Your task to perform on an android device: uninstall "Clock" Image 0: 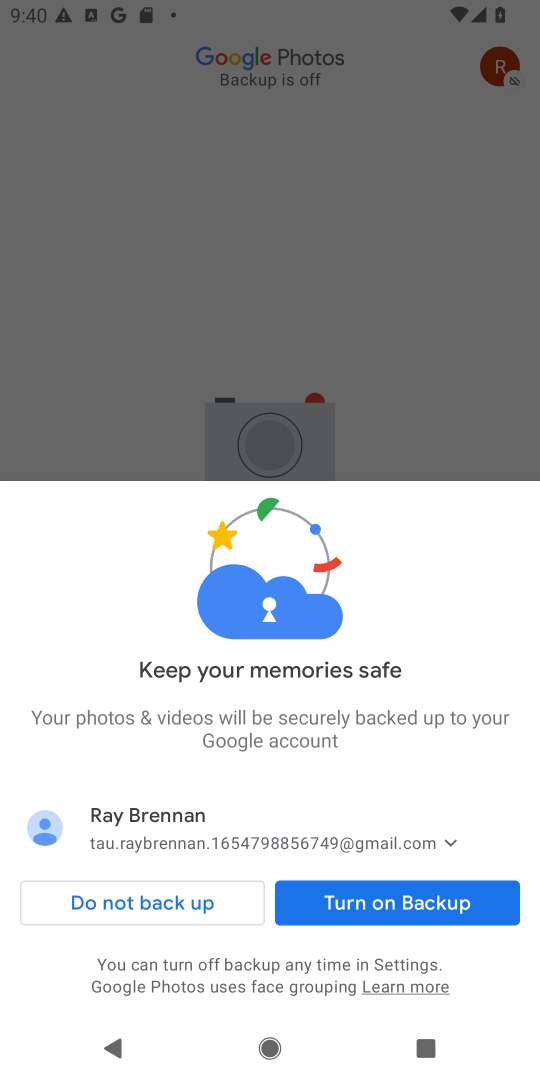
Step 0: press home button
Your task to perform on an android device: uninstall "Clock" Image 1: 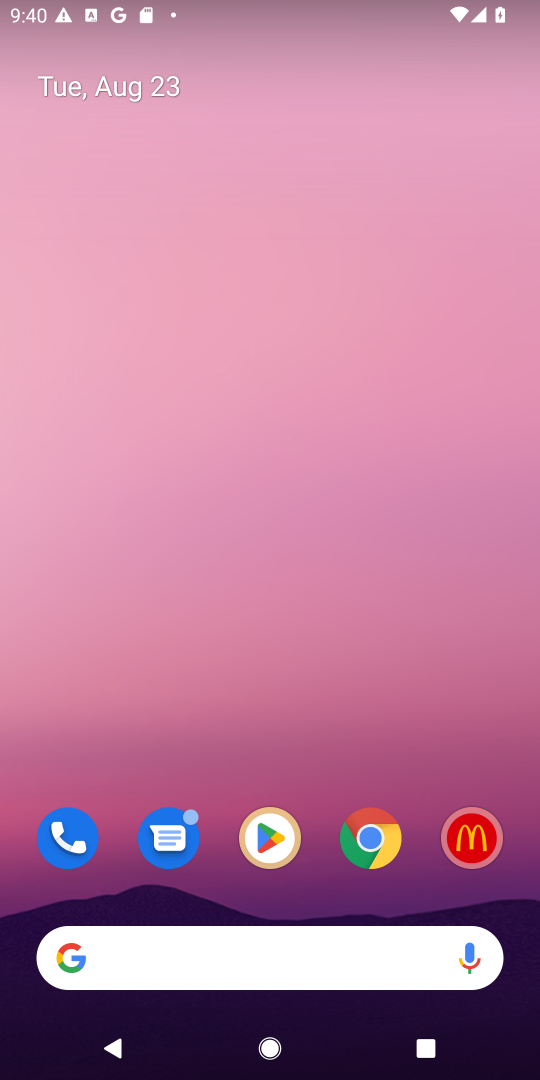
Step 1: click (282, 852)
Your task to perform on an android device: uninstall "Clock" Image 2: 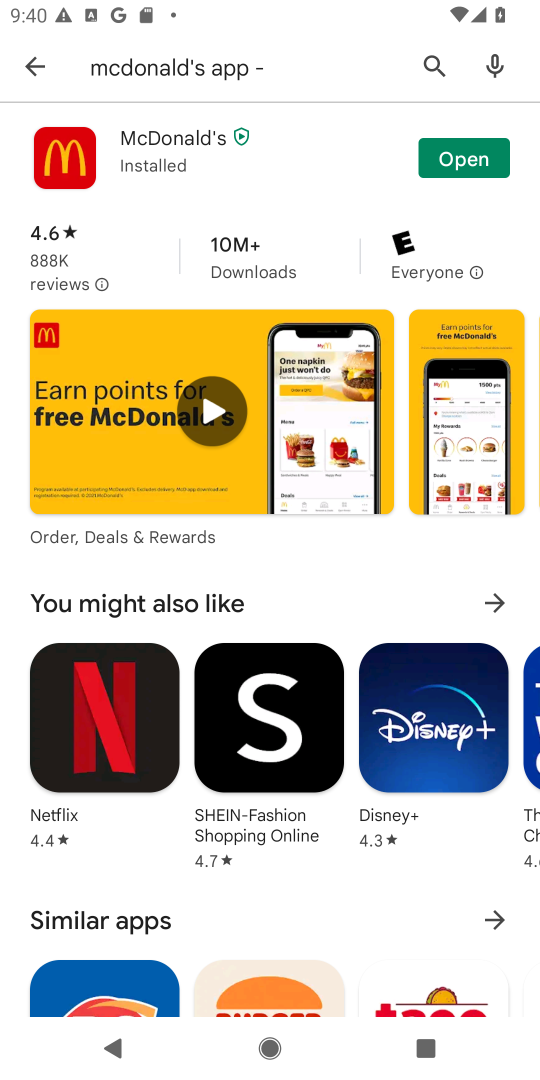
Step 2: click (423, 68)
Your task to perform on an android device: uninstall "Clock" Image 3: 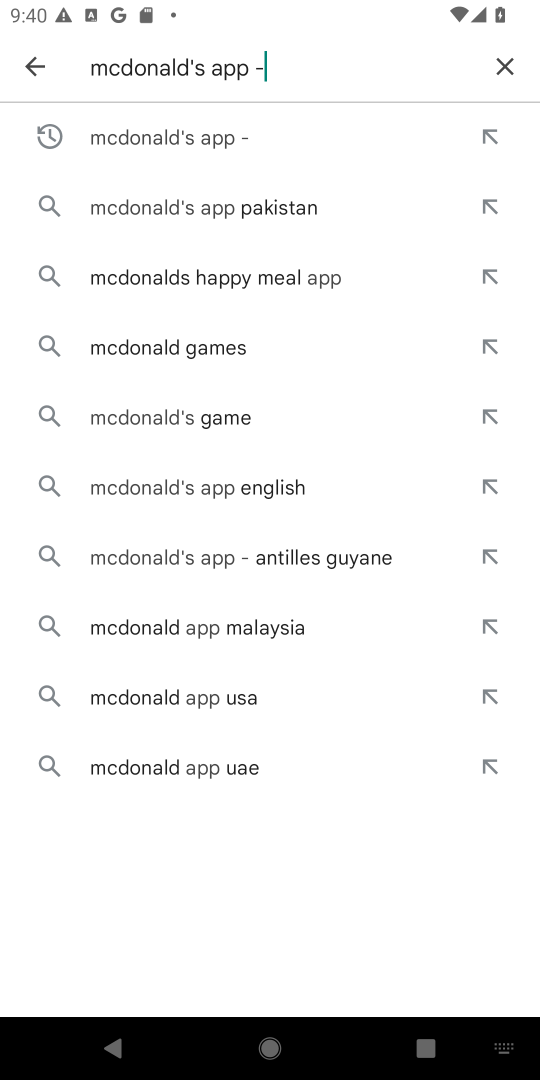
Step 3: click (493, 64)
Your task to perform on an android device: uninstall "Clock" Image 4: 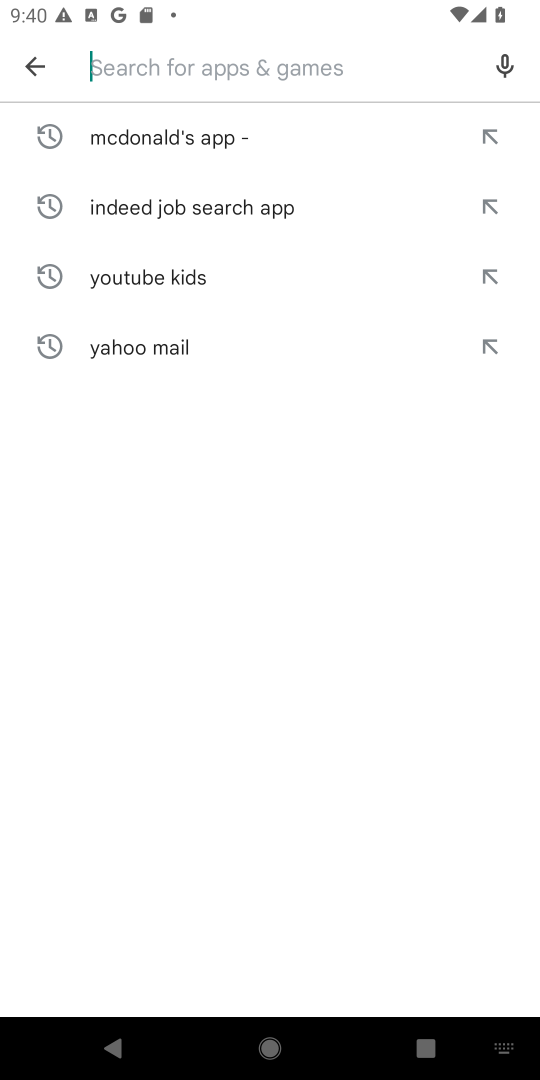
Step 4: type "Clock"
Your task to perform on an android device: uninstall "Clock" Image 5: 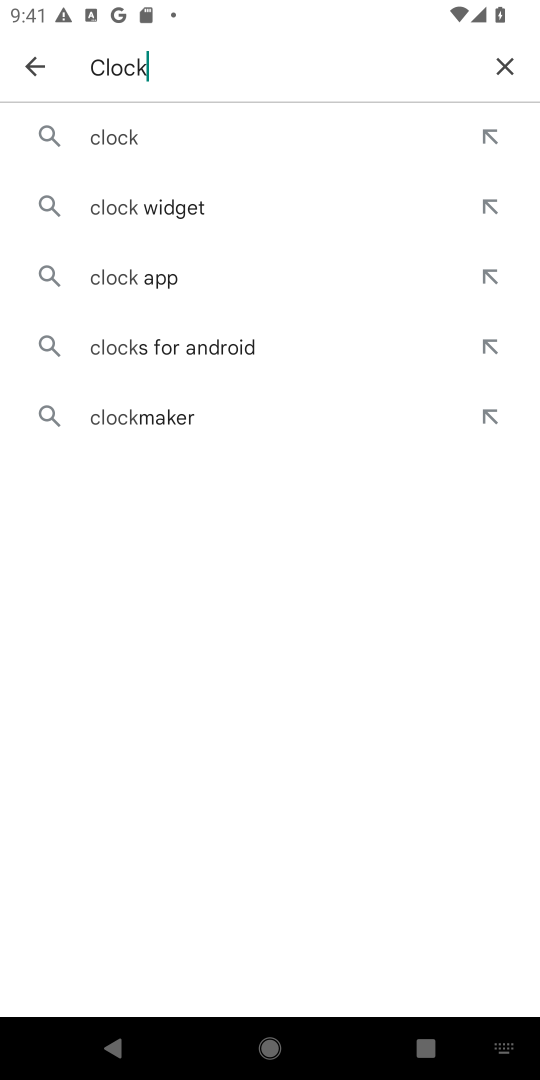
Step 5: click (176, 144)
Your task to perform on an android device: uninstall "Clock" Image 6: 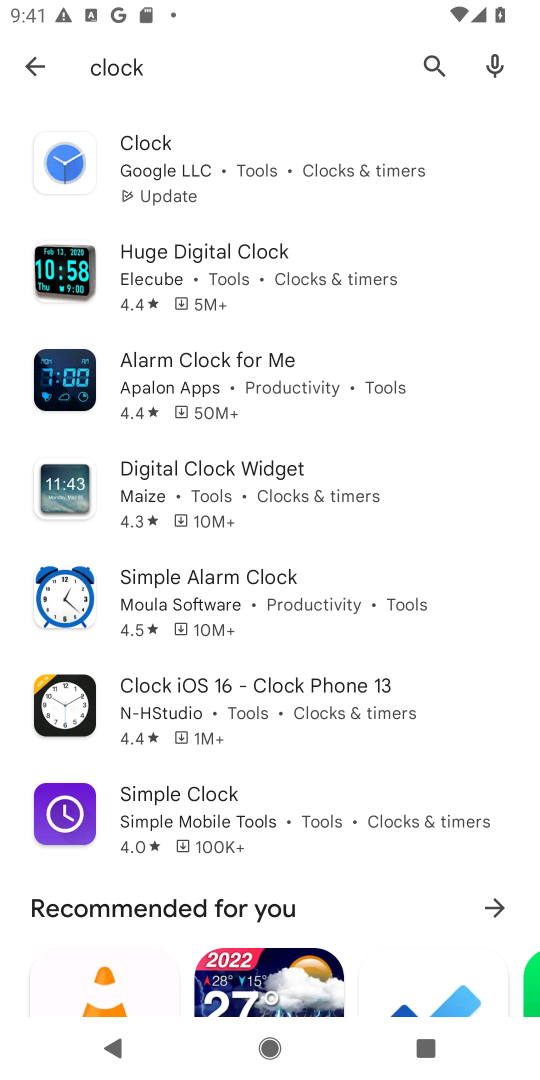
Step 6: click (183, 148)
Your task to perform on an android device: uninstall "Clock" Image 7: 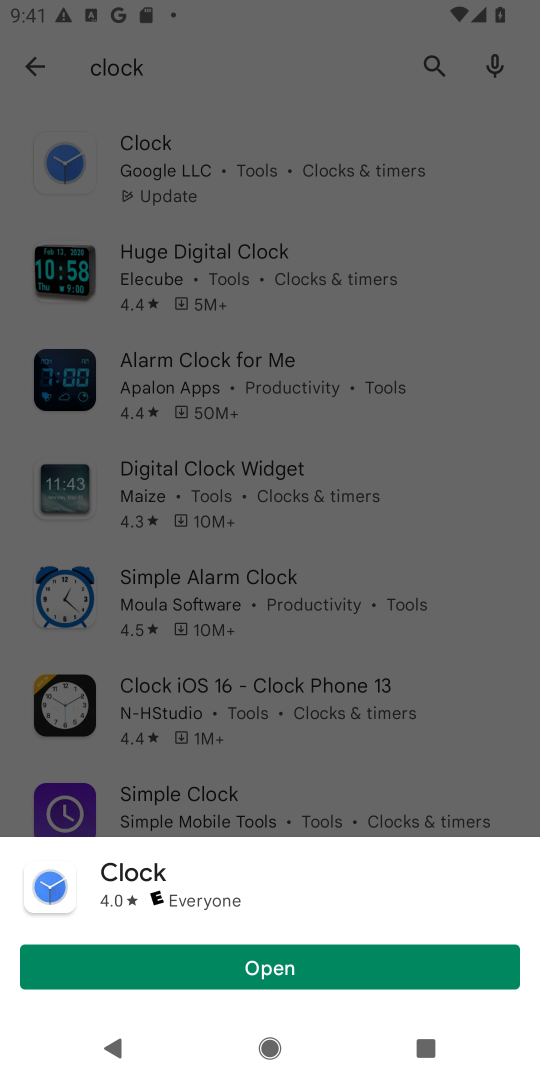
Step 7: click (166, 195)
Your task to perform on an android device: uninstall "Clock" Image 8: 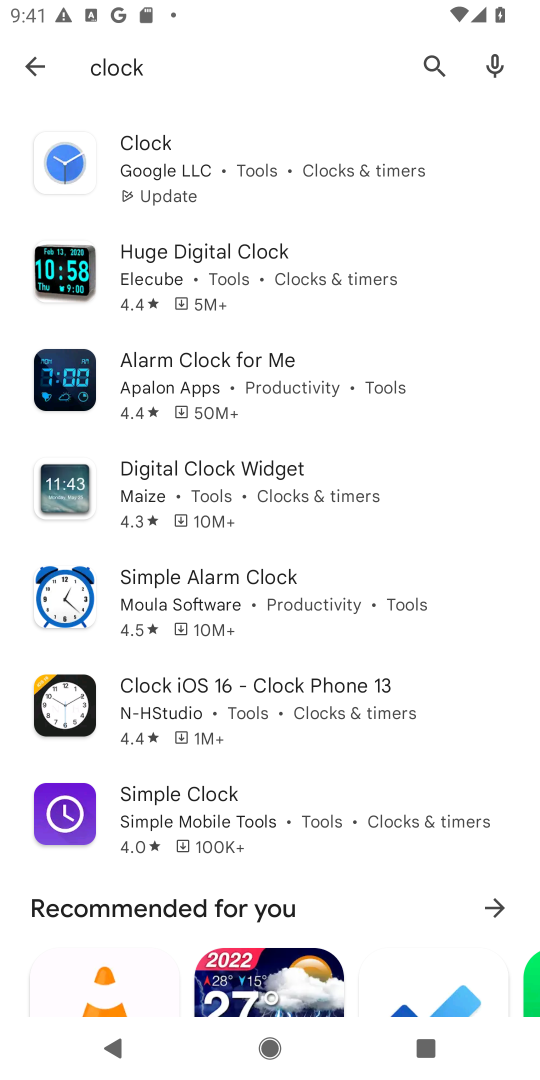
Step 8: click (197, 173)
Your task to perform on an android device: uninstall "Clock" Image 9: 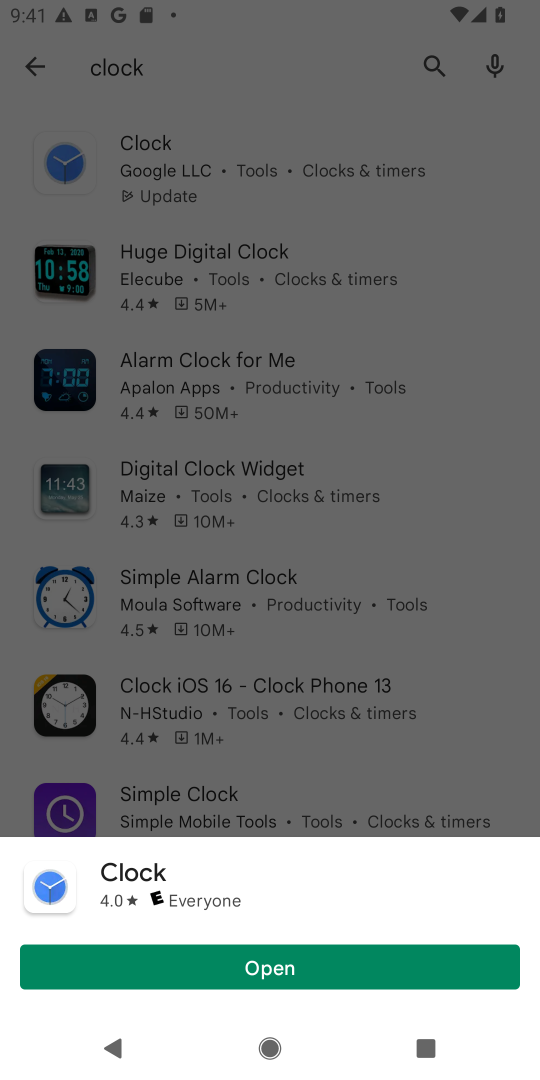
Step 9: click (276, 175)
Your task to perform on an android device: uninstall "Clock" Image 10: 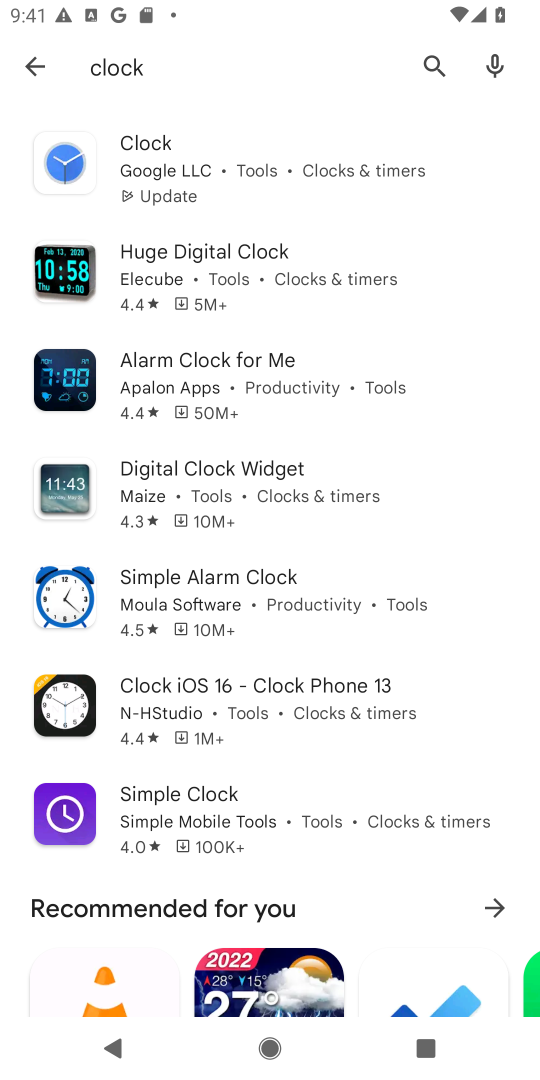
Step 10: click (141, 159)
Your task to perform on an android device: uninstall "Clock" Image 11: 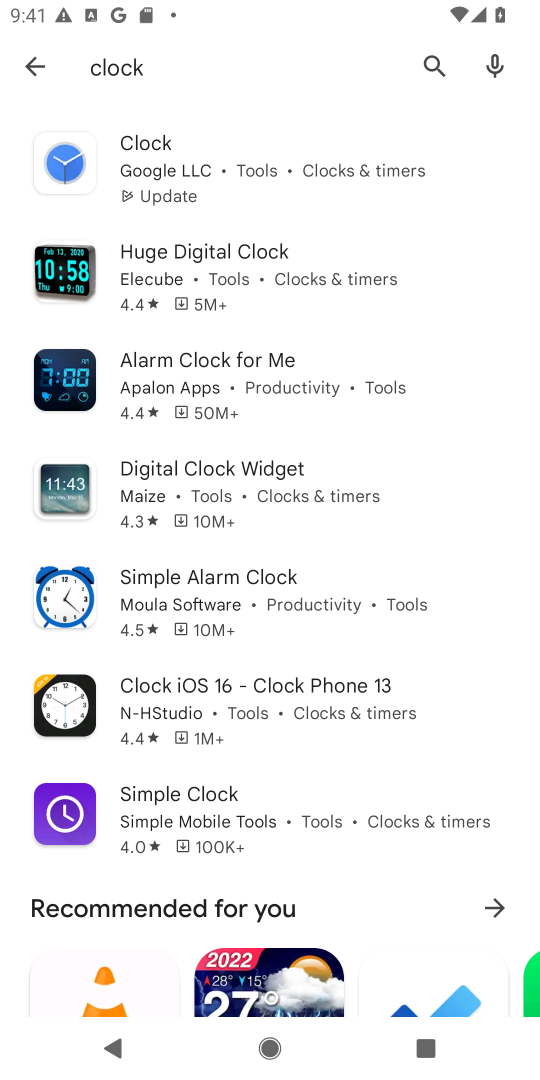
Step 11: click (114, 155)
Your task to perform on an android device: uninstall "Clock" Image 12: 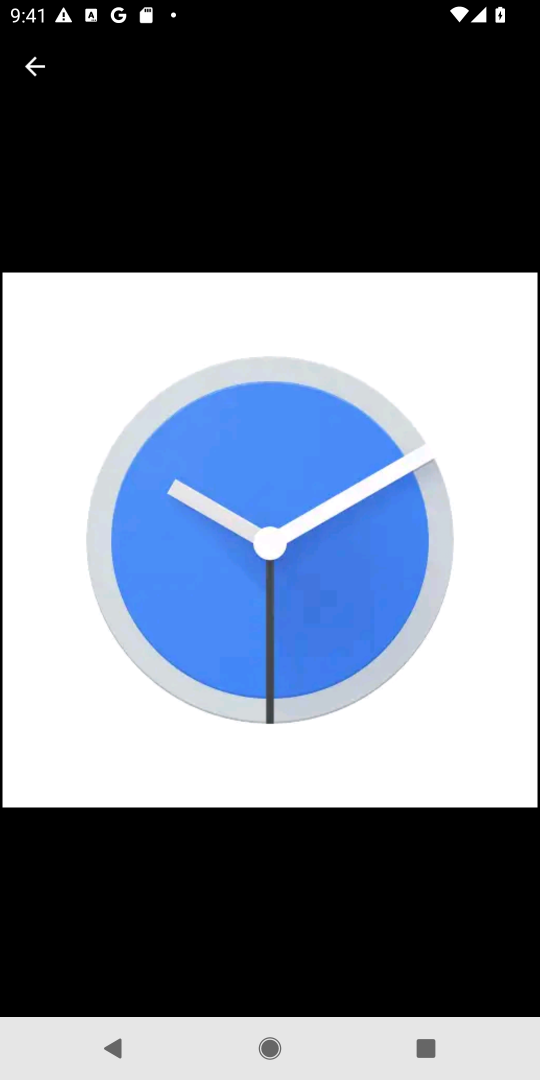
Step 12: click (41, 72)
Your task to perform on an android device: uninstall "Clock" Image 13: 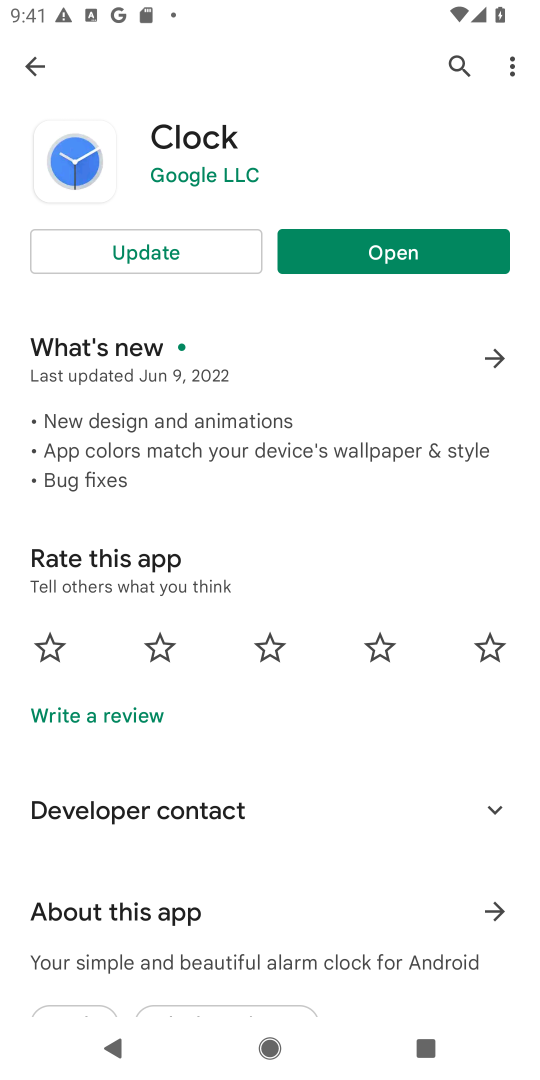
Step 13: click (168, 251)
Your task to perform on an android device: uninstall "Clock" Image 14: 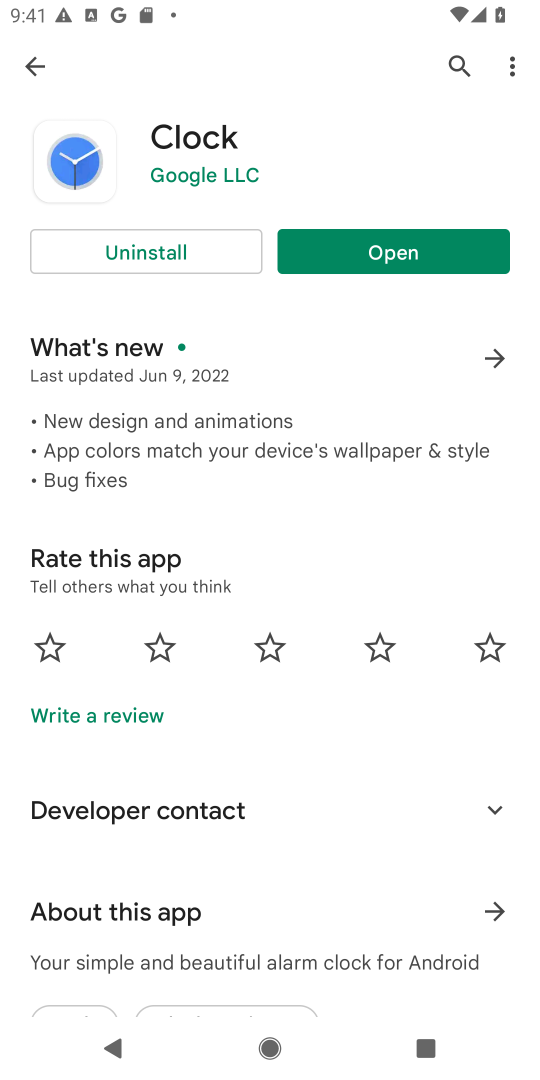
Step 14: click (168, 251)
Your task to perform on an android device: uninstall "Clock" Image 15: 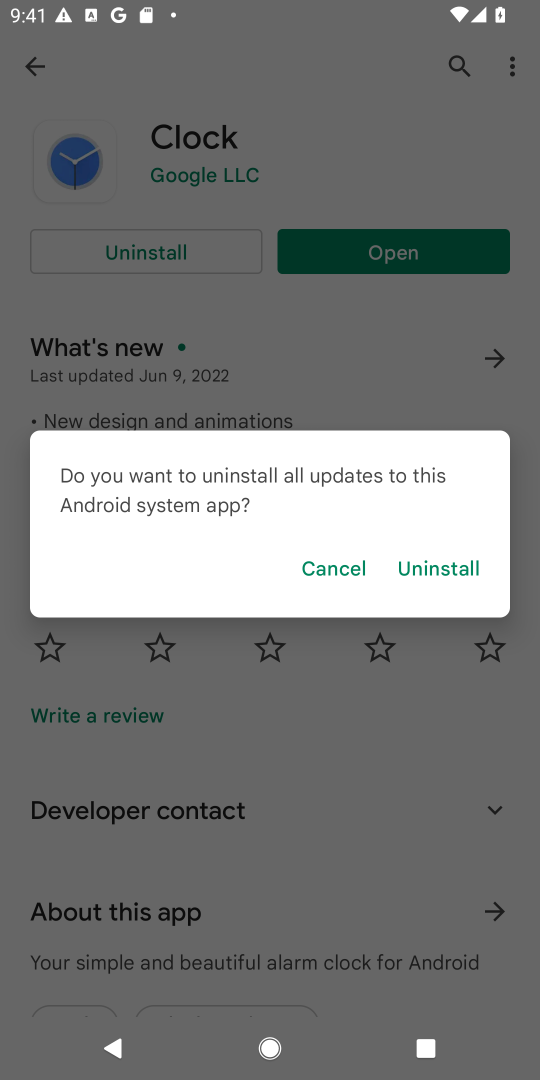
Step 15: click (420, 549)
Your task to perform on an android device: uninstall "Clock" Image 16: 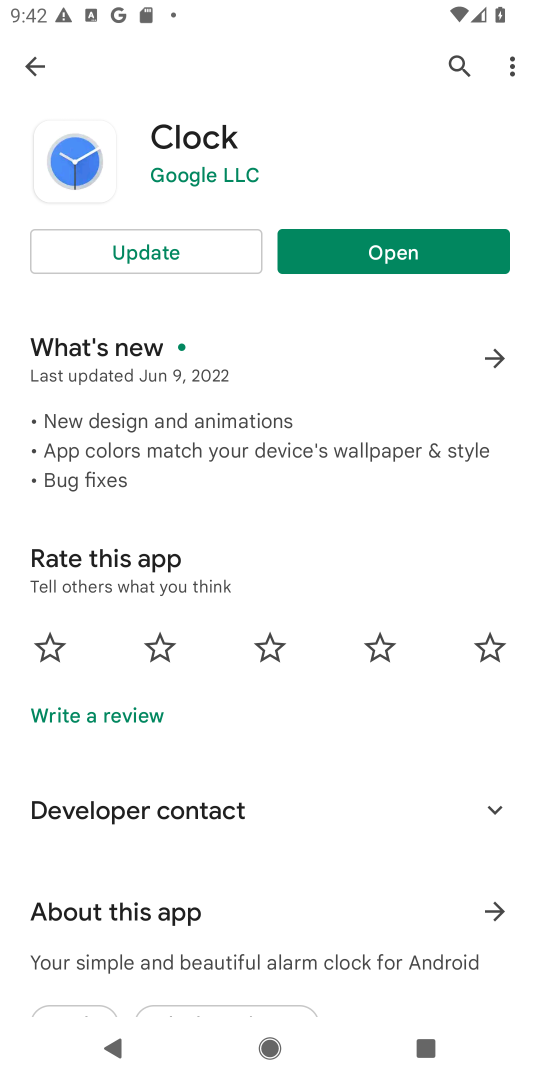
Step 16: click (152, 257)
Your task to perform on an android device: uninstall "Clock" Image 17: 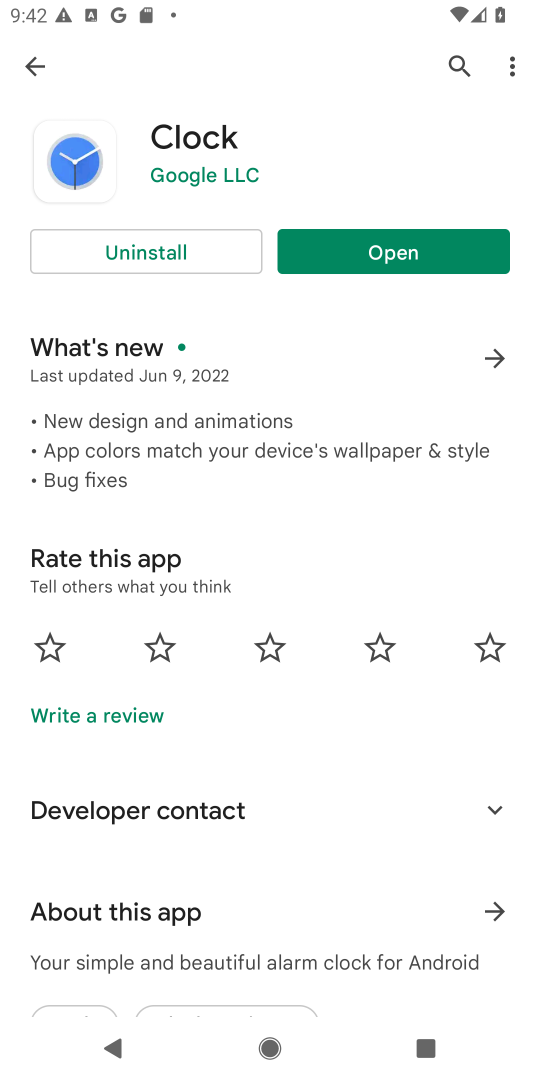
Step 17: click (152, 257)
Your task to perform on an android device: uninstall "Clock" Image 18: 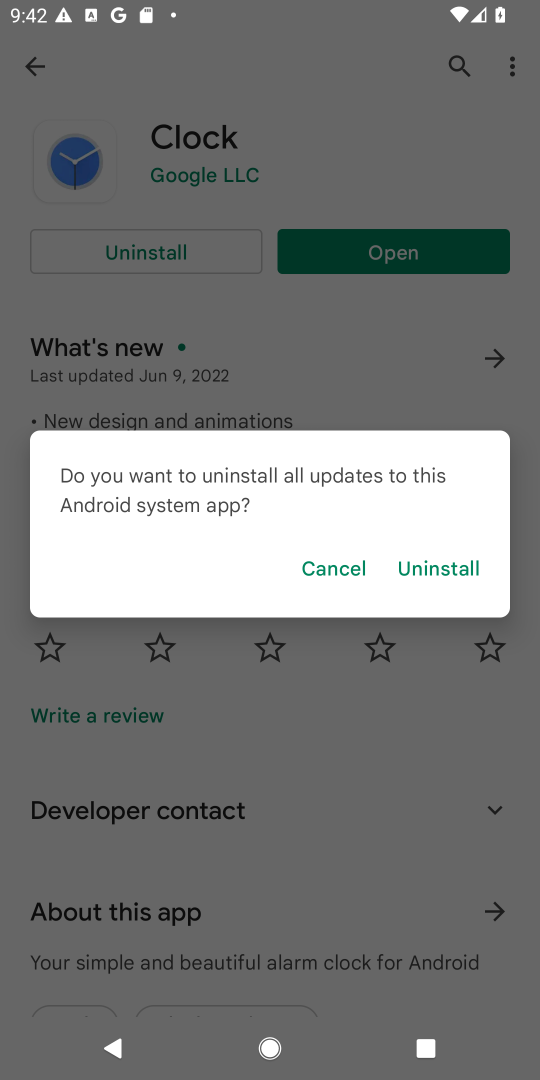
Step 18: click (458, 564)
Your task to perform on an android device: uninstall "Clock" Image 19: 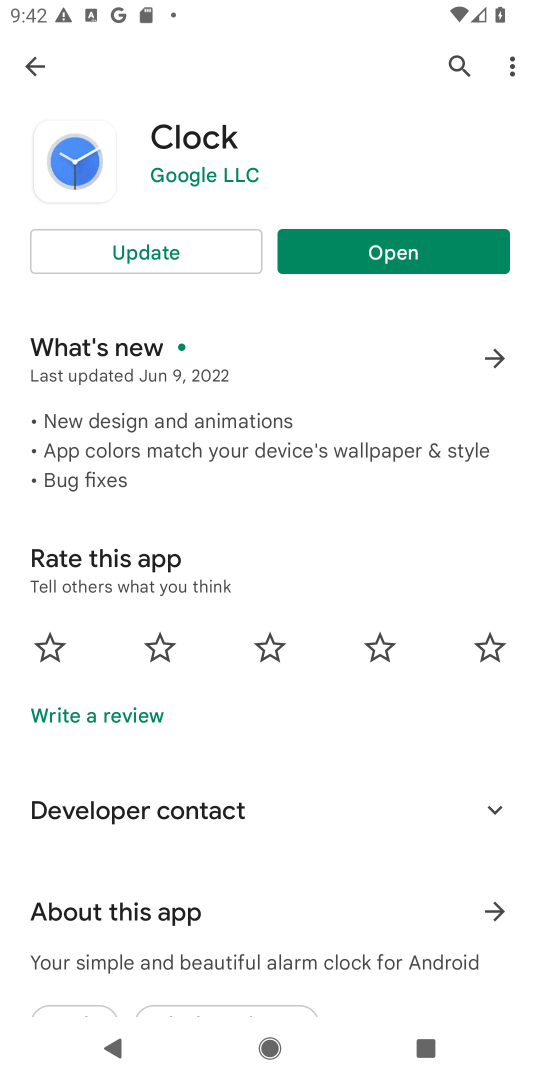
Step 19: task complete